Your task to perform on an android device: read, delete, or share a saved page in the chrome app Image 0: 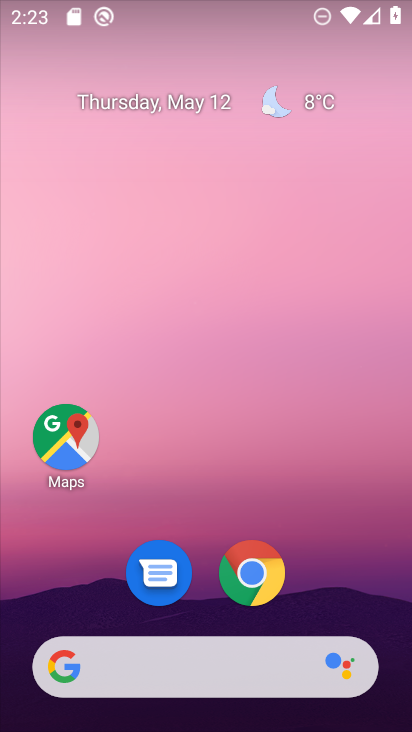
Step 0: drag from (371, 607) to (128, 48)
Your task to perform on an android device: read, delete, or share a saved page in the chrome app Image 1: 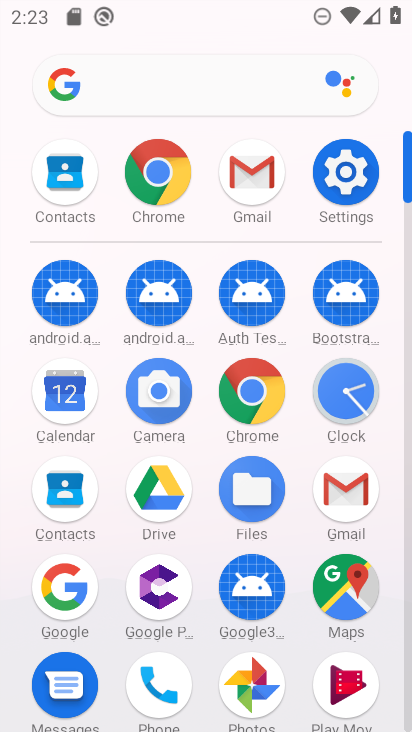
Step 1: click (149, 157)
Your task to perform on an android device: read, delete, or share a saved page in the chrome app Image 2: 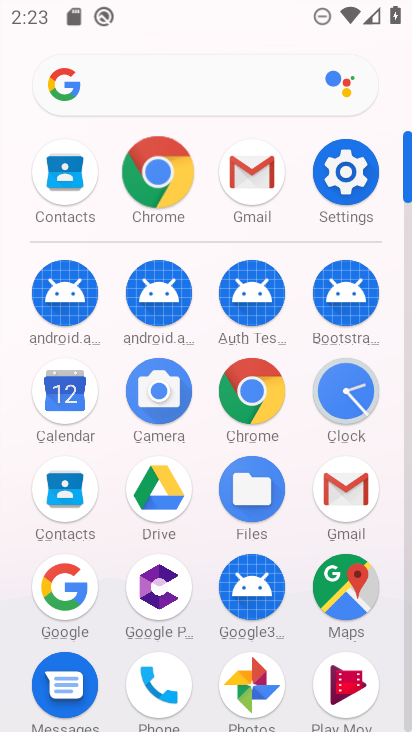
Step 2: click (149, 158)
Your task to perform on an android device: read, delete, or share a saved page in the chrome app Image 3: 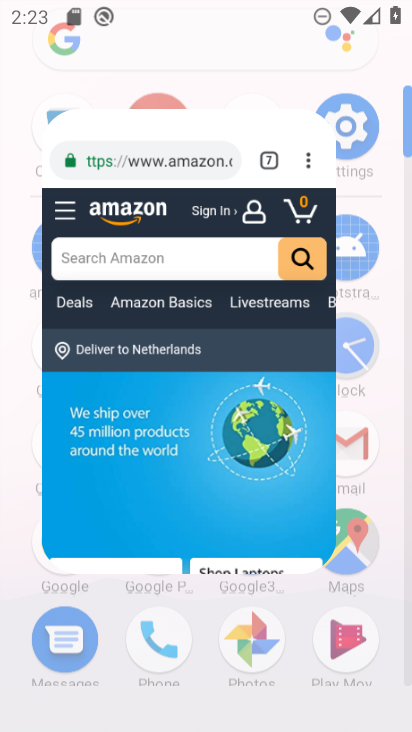
Step 3: click (150, 159)
Your task to perform on an android device: read, delete, or share a saved page in the chrome app Image 4: 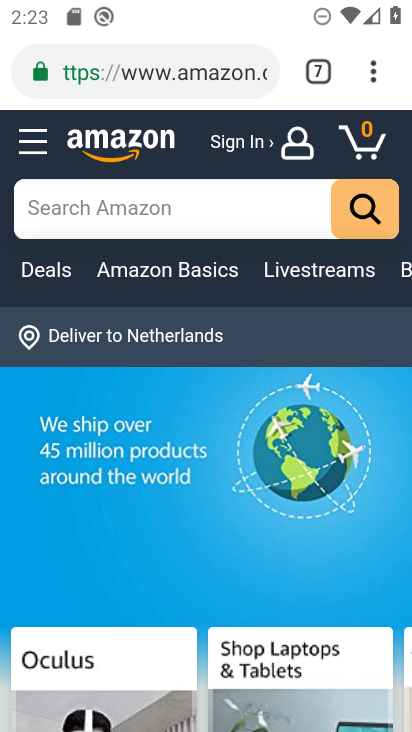
Step 4: drag from (375, 77) to (118, 465)
Your task to perform on an android device: read, delete, or share a saved page in the chrome app Image 5: 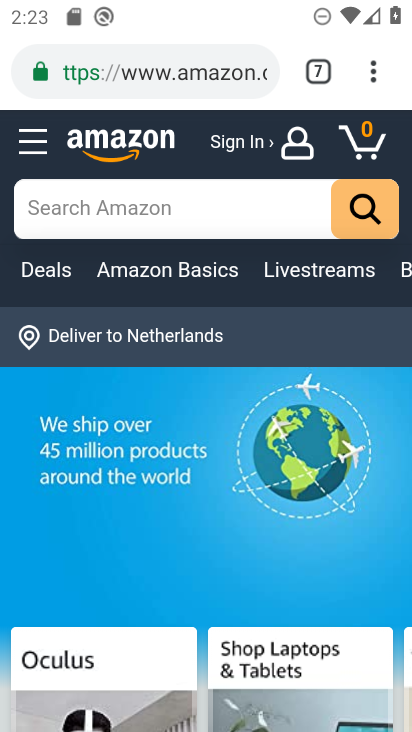
Step 5: click (118, 465)
Your task to perform on an android device: read, delete, or share a saved page in the chrome app Image 6: 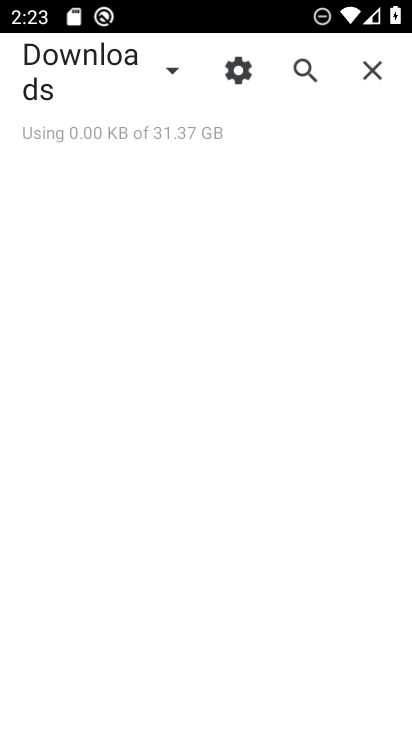
Step 6: click (175, 66)
Your task to perform on an android device: read, delete, or share a saved page in the chrome app Image 7: 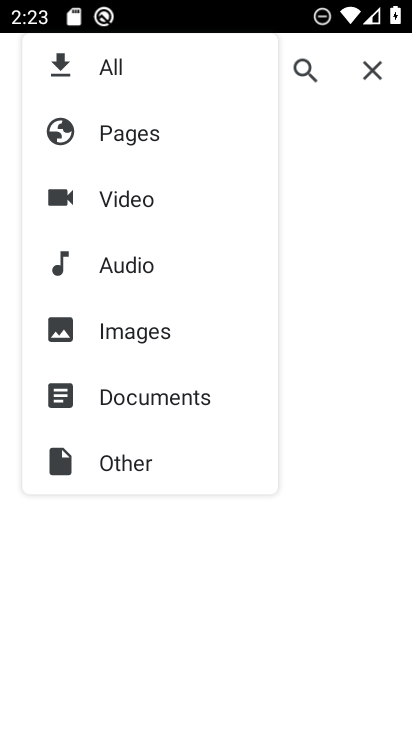
Step 7: click (112, 132)
Your task to perform on an android device: read, delete, or share a saved page in the chrome app Image 8: 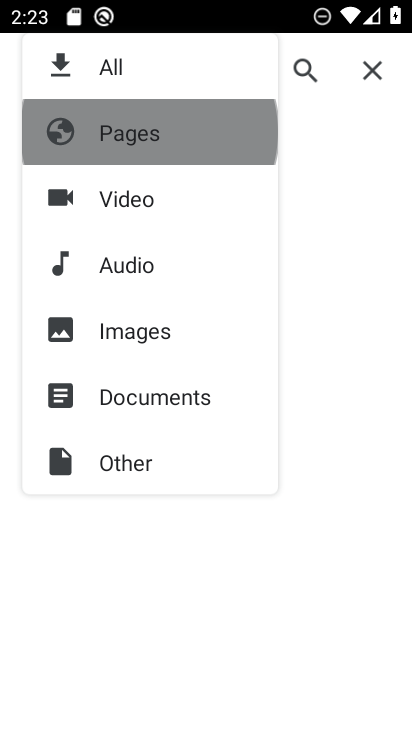
Step 8: click (112, 130)
Your task to perform on an android device: read, delete, or share a saved page in the chrome app Image 9: 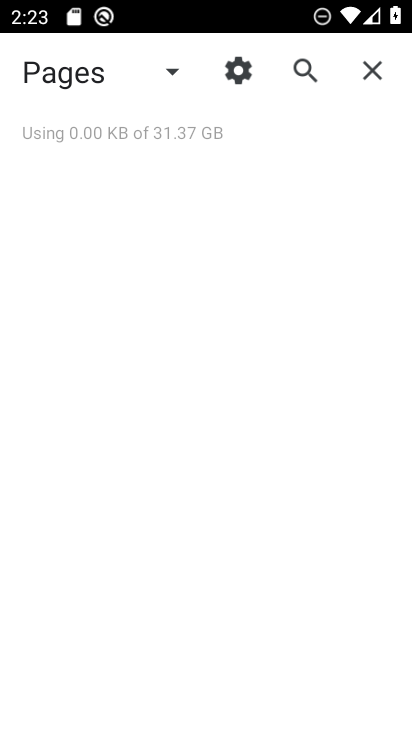
Step 9: task complete